Your task to perform on an android device: turn off sleep mode Image 0: 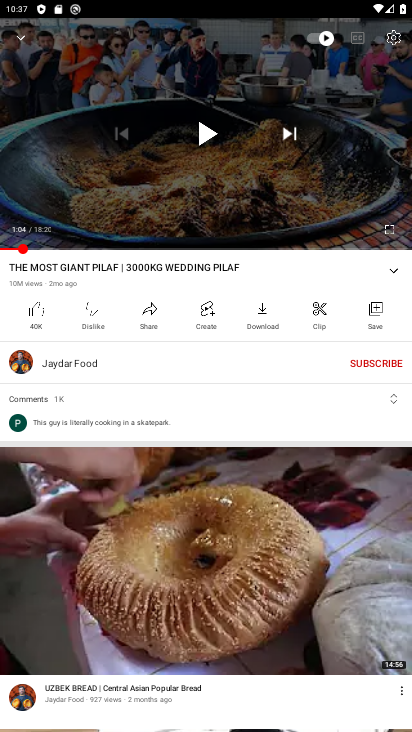
Step 0: press home button
Your task to perform on an android device: turn off sleep mode Image 1: 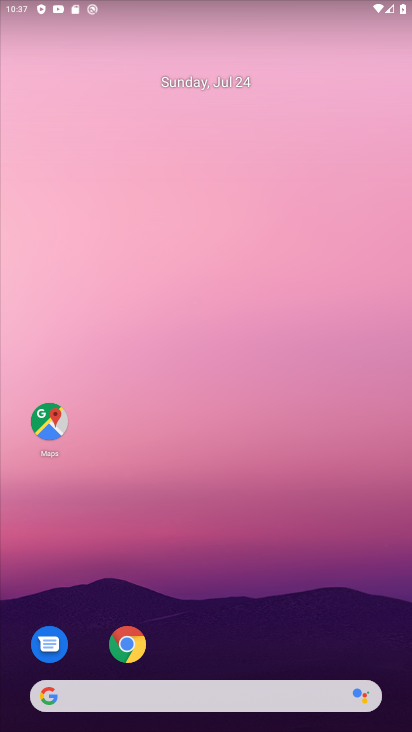
Step 1: drag from (219, 667) to (256, 16)
Your task to perform on an android device: turn off sleep mode Image 2: 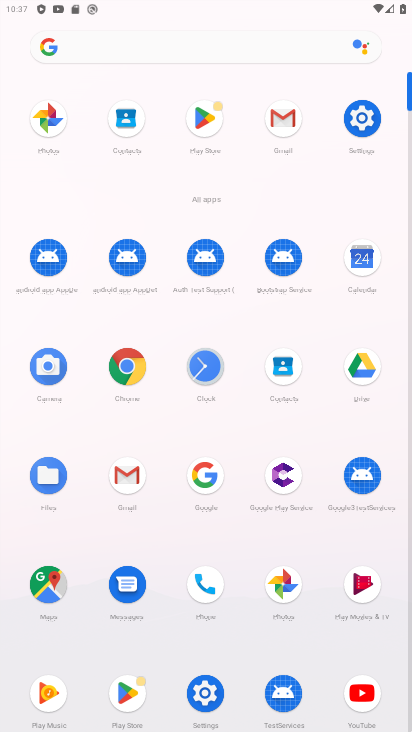
Step 2: click (359, 115)
Your task to perform on an android device: turn off sleep mode Image 3: 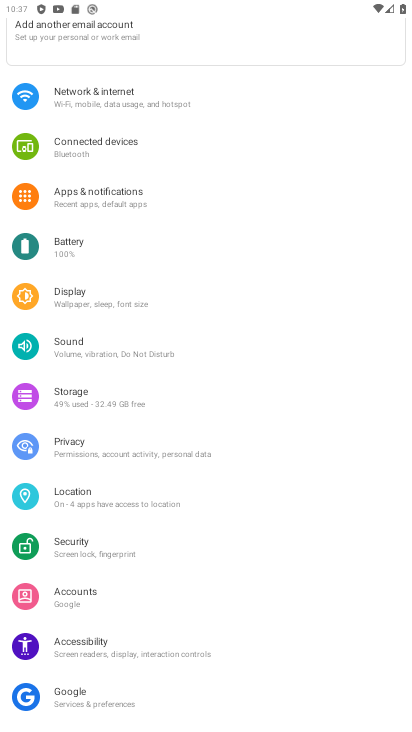
Step 3: click (71, 306)
Your task to perform on an android device: turn off sleep mode Image 4: 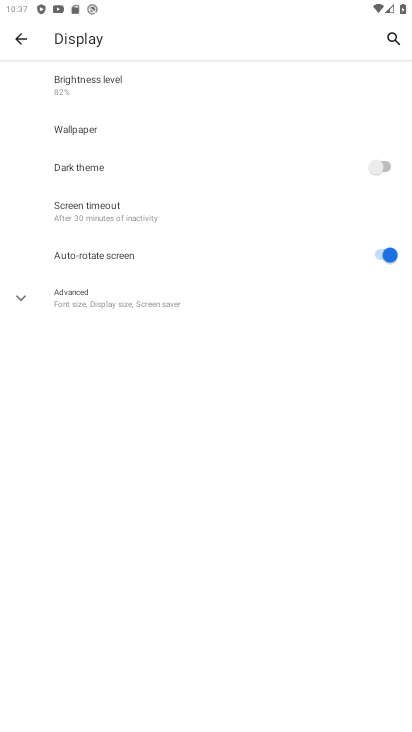
Step 4: click (20, 301)
Your task to perform on an android device: turn off sleep mode Image 5: 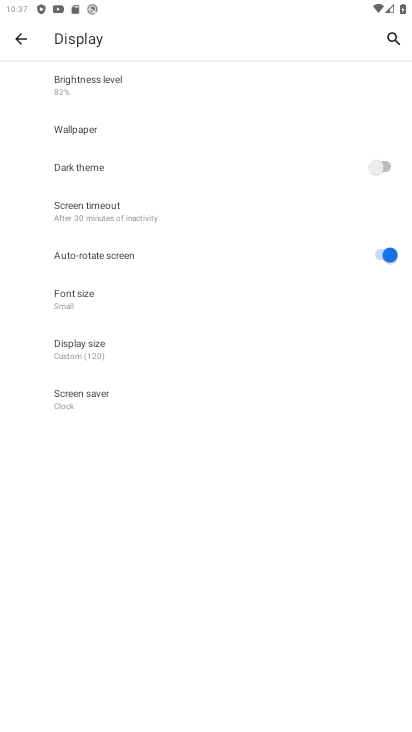
Step 5: task complete